Your task to perform on an android device: Check the weather Image 0: 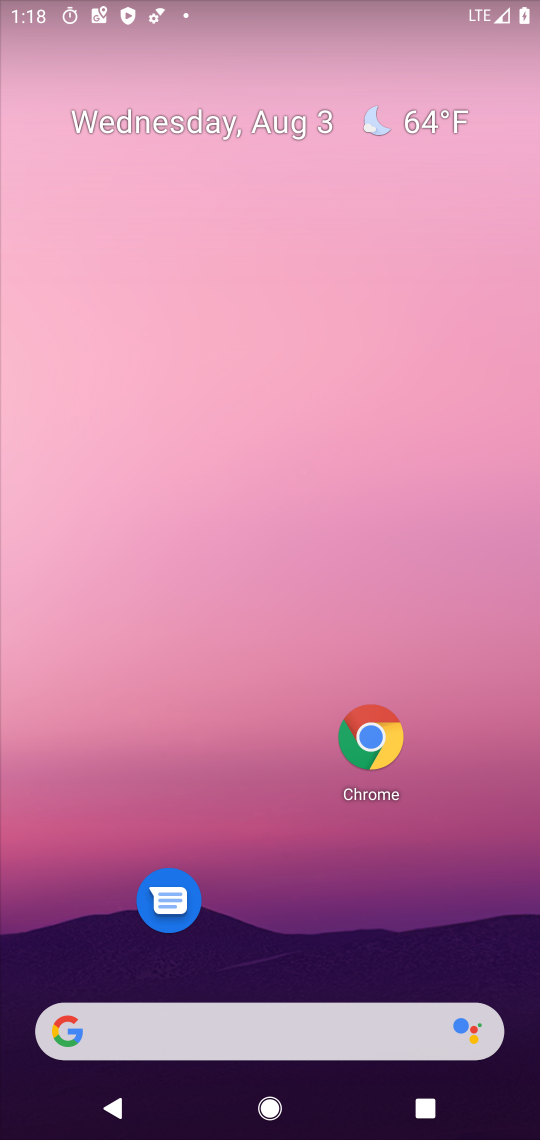
Step 0: drag from (303, 865) to (261, 122)
Your task to perform on an android device: Check the weather Image 1: 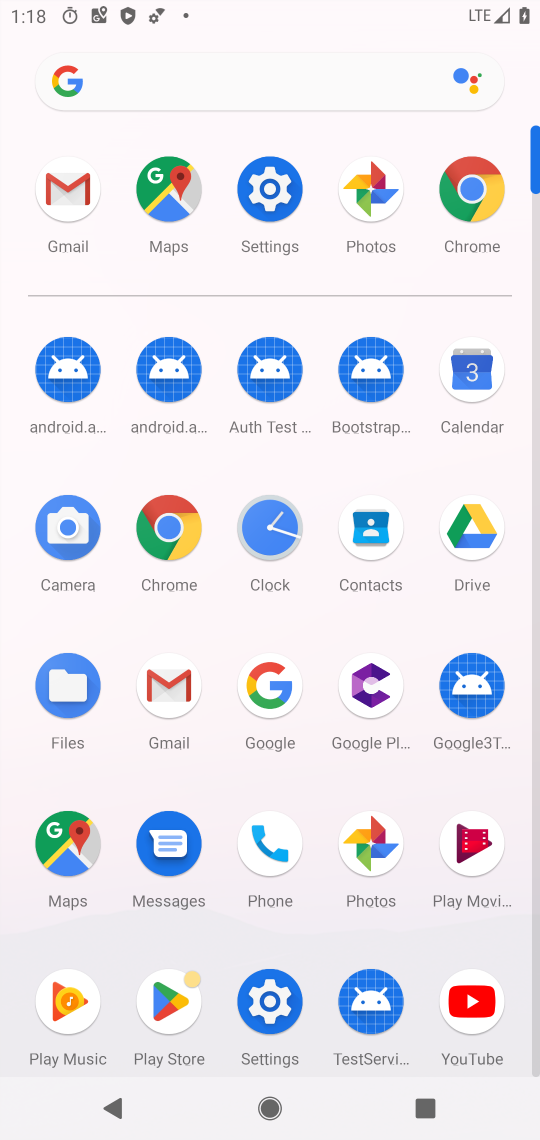
Step 1: press home button
Your task to perform on an android device: Check the weather Image 2: 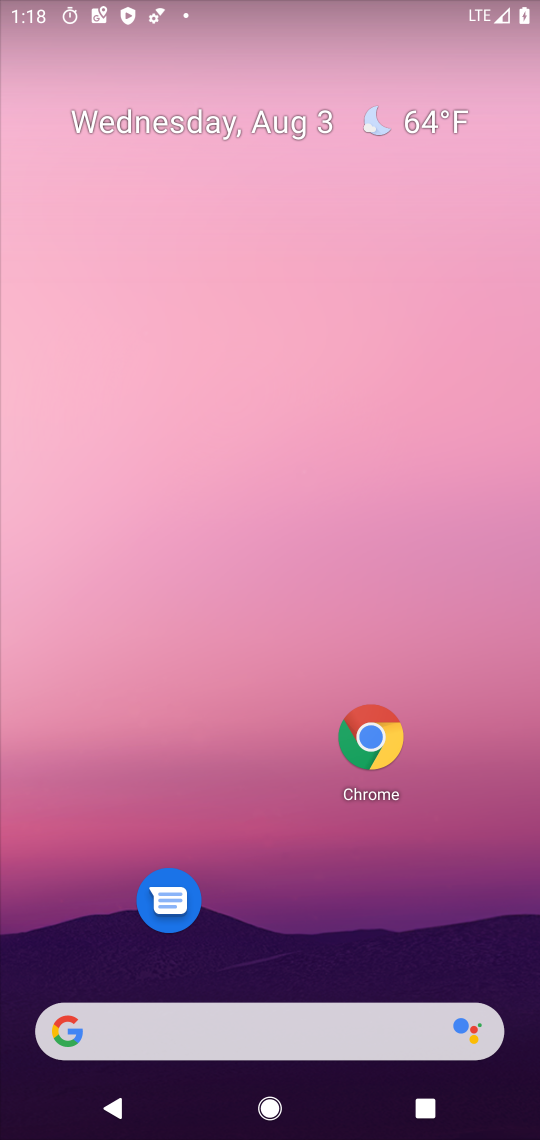
Step 2: click (421, 119)
Your task to perform on an android device: Check the weather Image 3: 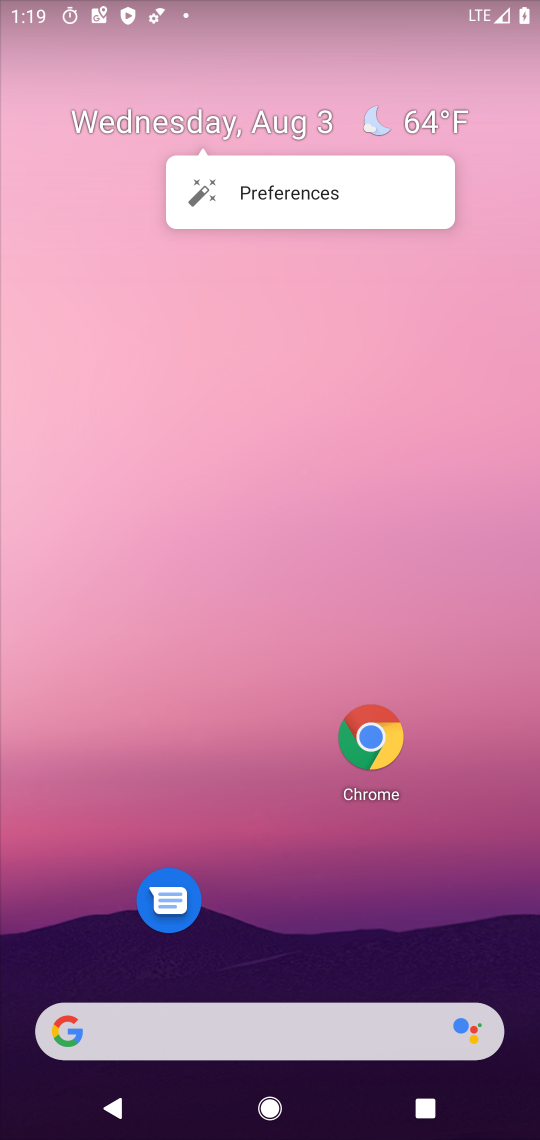
Step 3: click (463, 123)
Your task to perform on an android device: Check the weather Image 4: 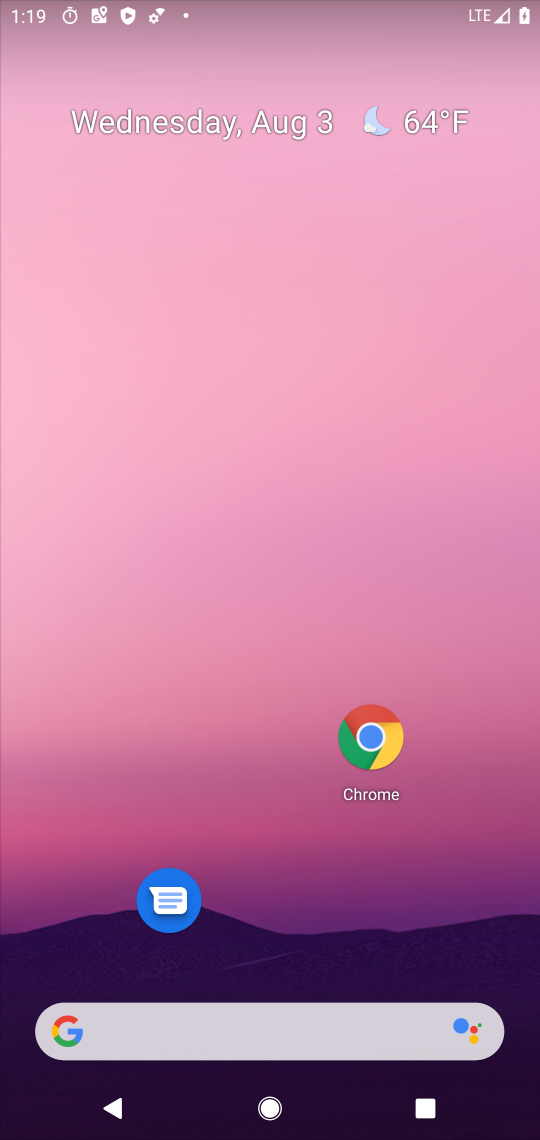
Step 4: click (436, 122)
Your task to perform on an android device: Check the weather Image 5: 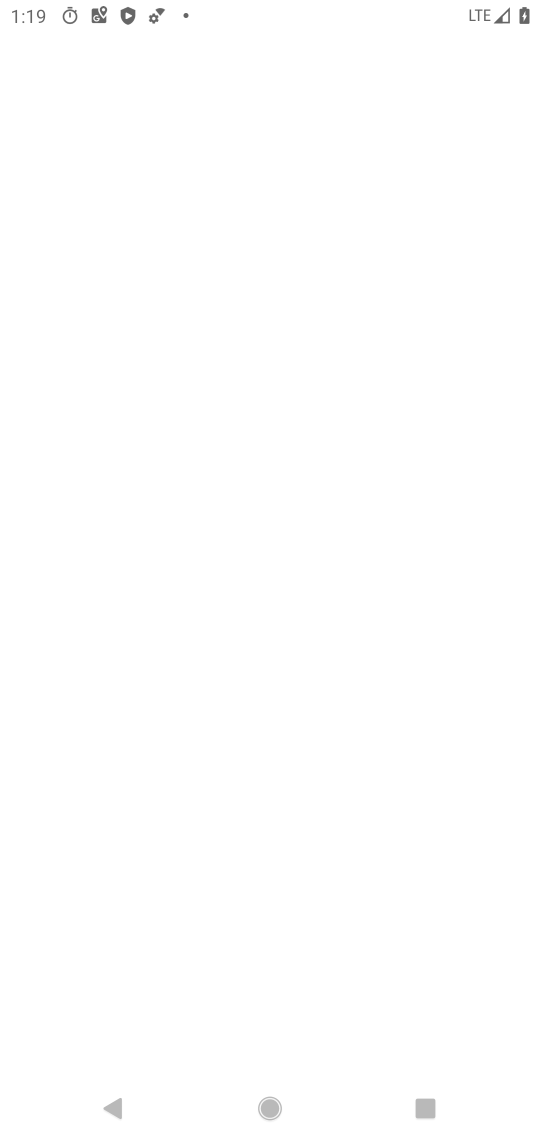
Step 5: click (436, 122)
Your task to perform on an android device: Check the weather Image 6: 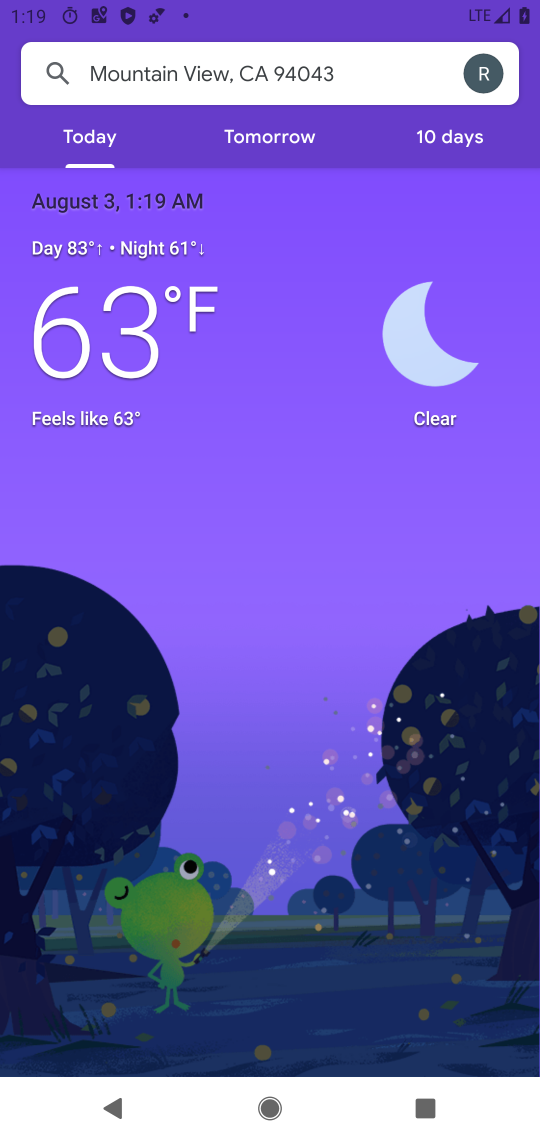
Step 6: task complete